Your task to perform on an android device: open a bookmark in the chrome app Image 0: 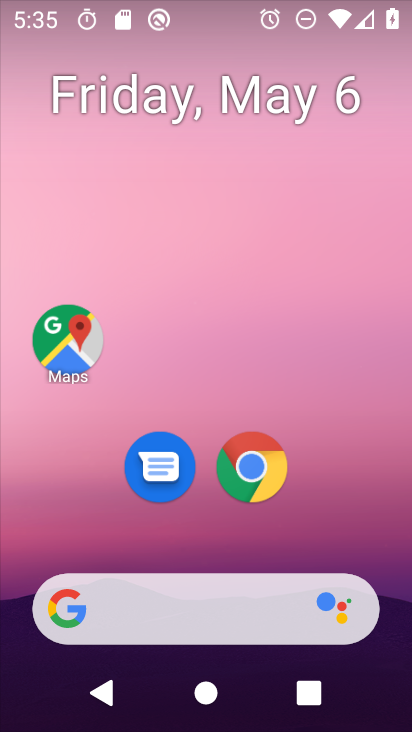
Step 0: drag from (301, 543) to (321, 332)
Your task to perform on an android device: open a bookmark in the chrome app Image 1: 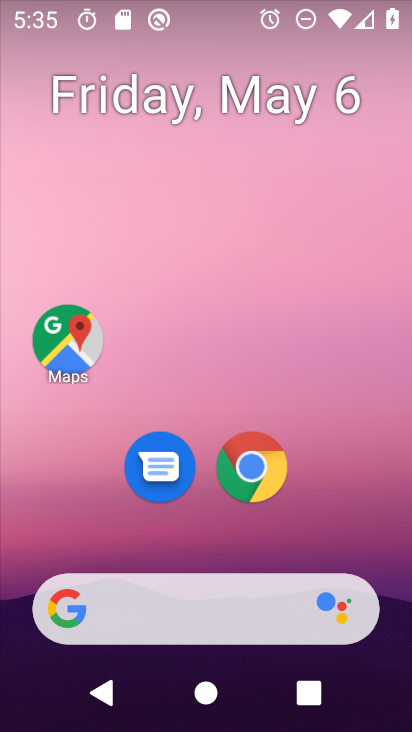
Step 1: click (269, 492)
Your task to perform on an android device: open a bookmark in the chrome app Image 2: 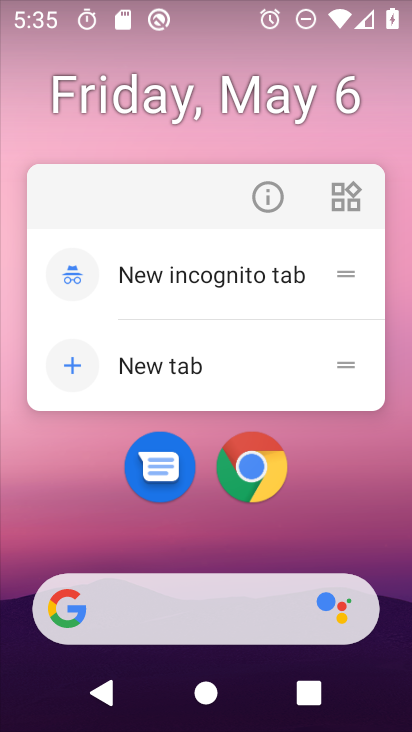
Step 2: click (247, 462)
Your task to perform on an android device: open a bookmark in the chrome app Image 3: 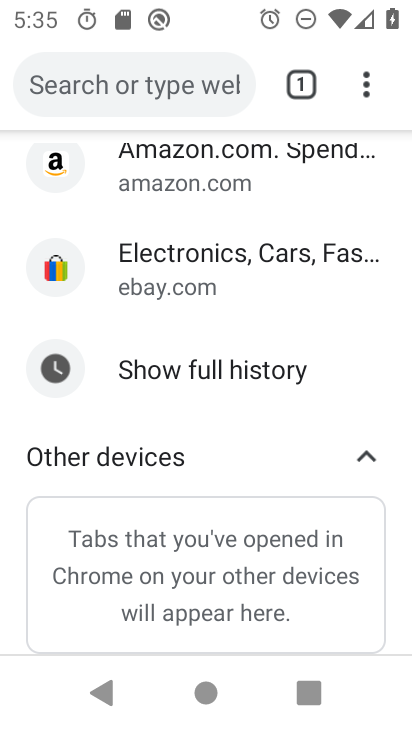
Step 3: click (367, 101)
Your task to perform on an android device: open a bookmark in the chrome app Image 4: 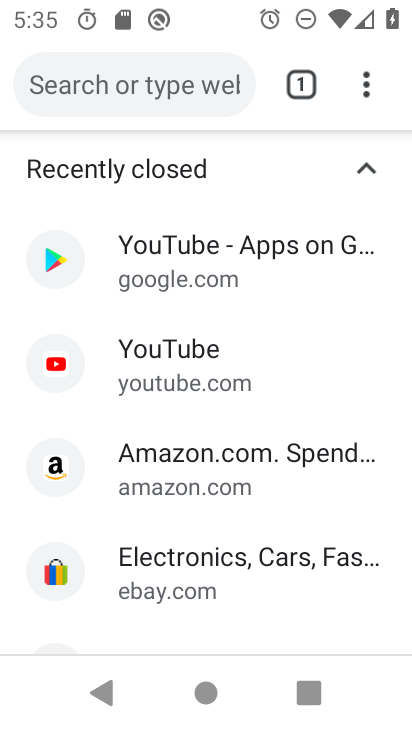
Step 4: click (368, 83)
Your task to perform on an android device: open a bookmark in the chrome app Image 5: 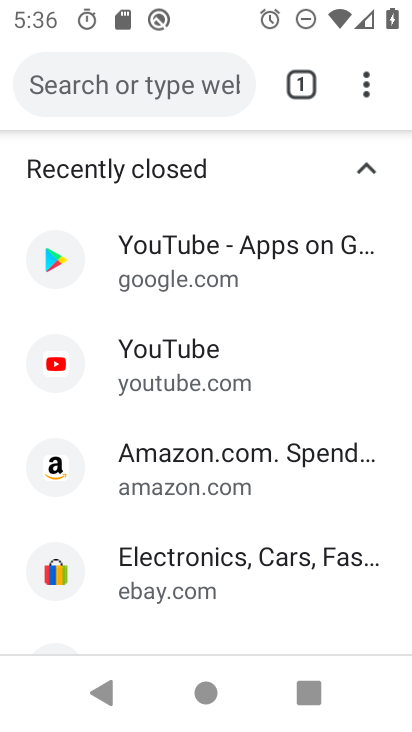
Step 5: click (356, 81)
Your task to perform on an android device: open a bookmark in the chrome app Image 6: 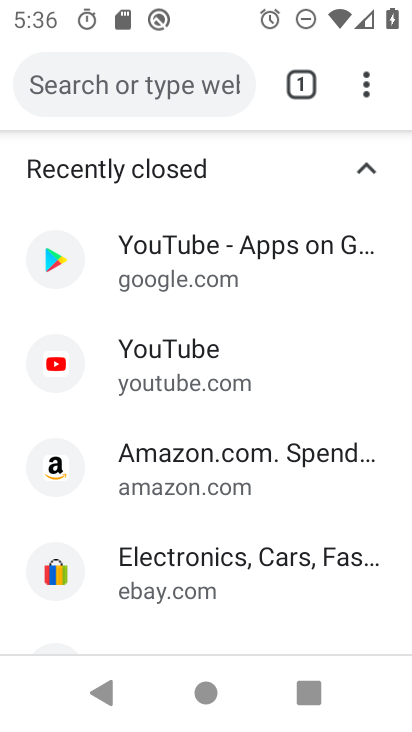
Step 6: click (362, 91)
Your task to perform on an android device: open a bookmark in the chrome app Image 7: 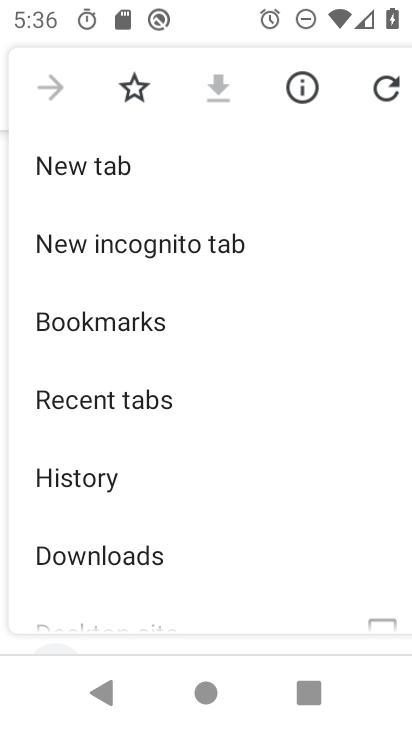
Step 7: click (165, 329)
Your task to perform on an android device: open a bookmark in the chrome app Image 8: 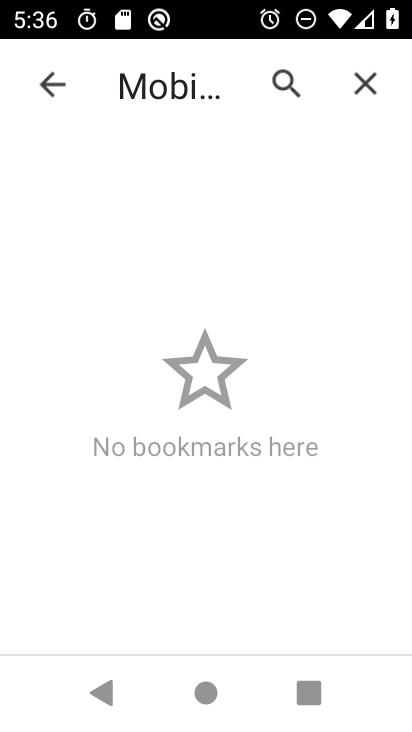
Step 8: task complete